Your task to perform on an android device: set default search engine in the chrome app Image 0: 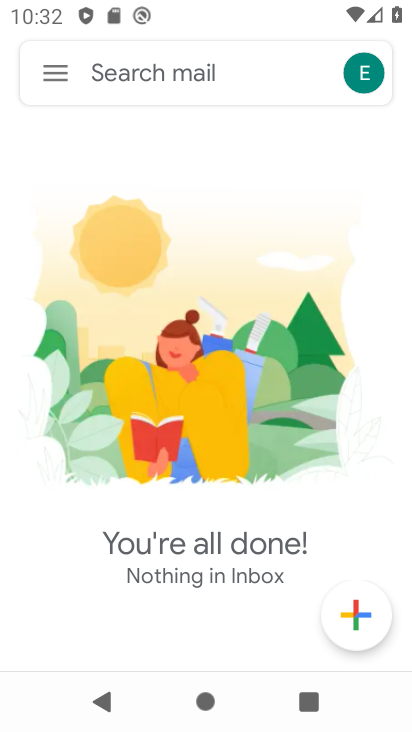
Step 0: press home button
Your task to perform on an android device: set default search engine in the chrome app Image 1: 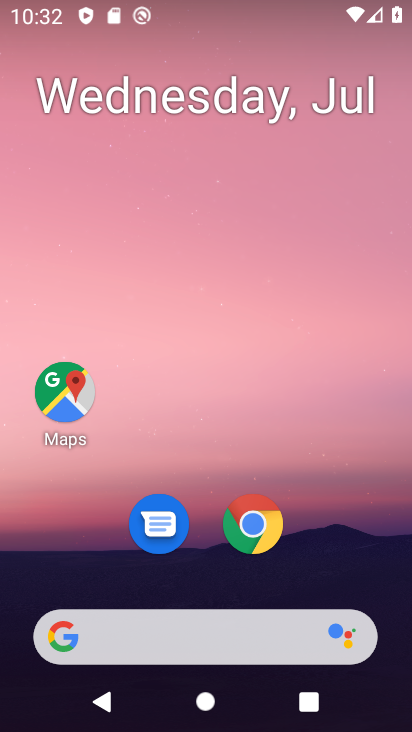
Step 1: click (255, 524)
Your task to perform on an android device: set default search engine in the chrome app Image 2: 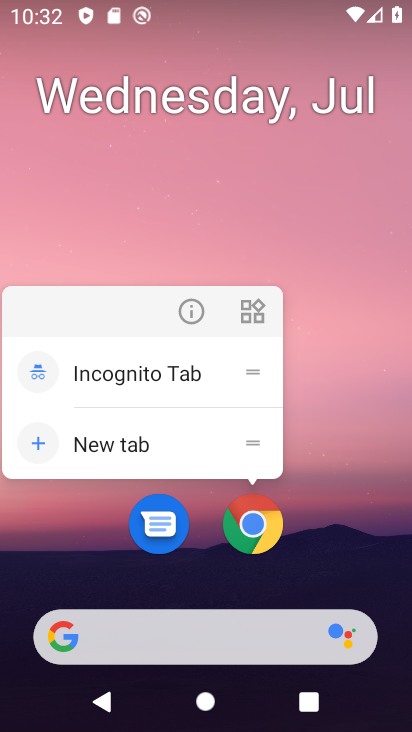
Step 2: click (255, 524)
Your task to perform on an android device: set default search engine in the chrome app Image 3: 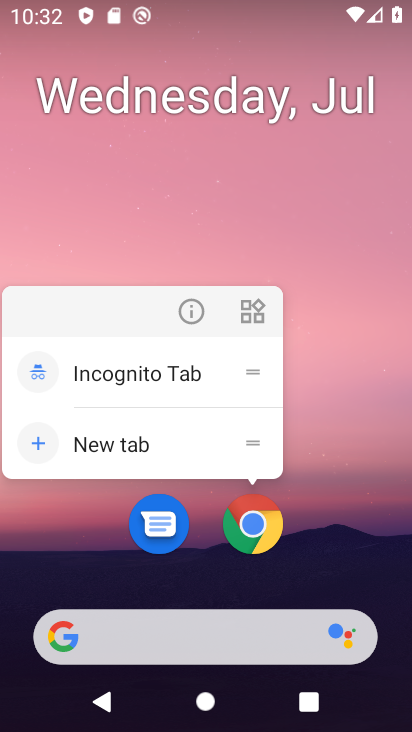
Step 3: click (259, 523)
Your task to perform on an android device: set default search engine in the chrome app Image 4: 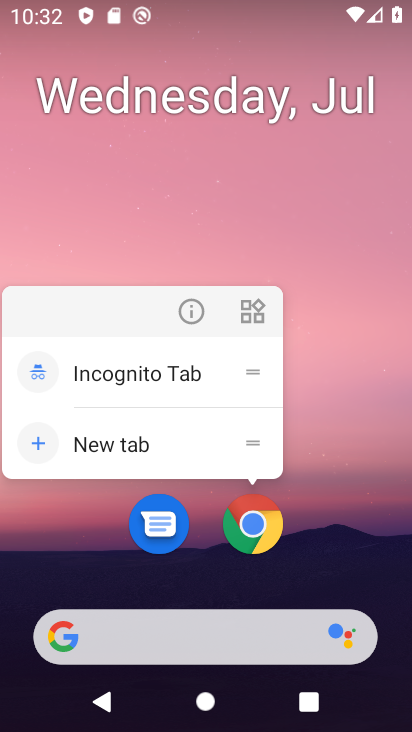
Step 4: click (259, 531)
Your task to perform on an android device: set default search engine in the chrome app Image 5: 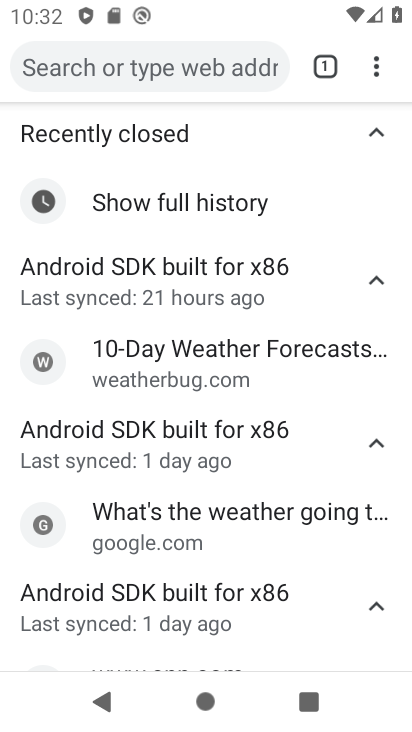
Step 5: drag from (378, 67) to (169, 568)
Your task to perform on an android device: set default search engine in the chrome app Image 6: 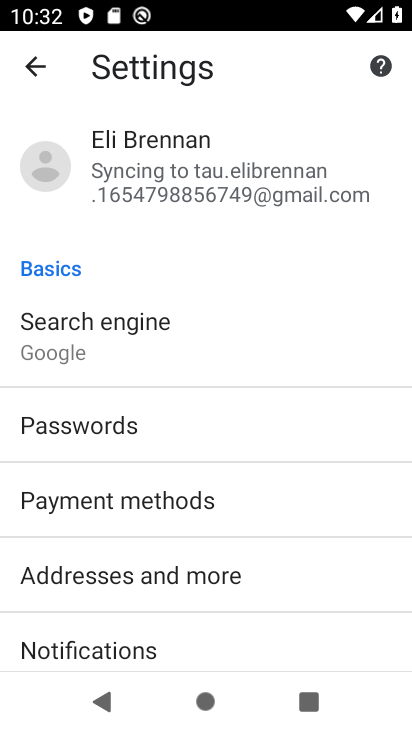
Step 6: click (114, 335)
Your task to perform on an android device: set default search engine in the chrome app Image 7: 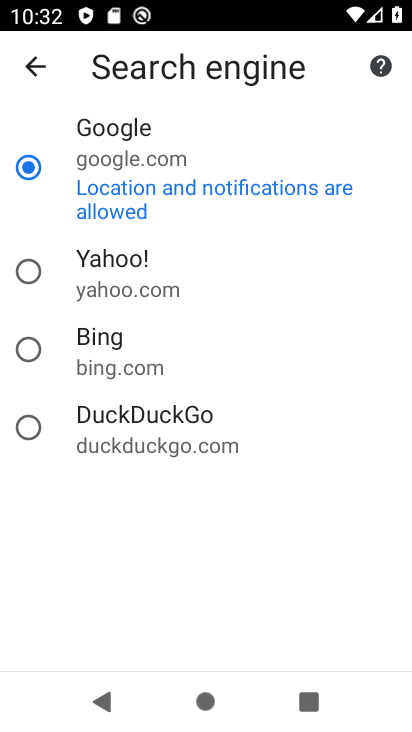
Step 7: click (32, 266)
Your task to perform on an android device: set default search engine in the chrome app Image 8: 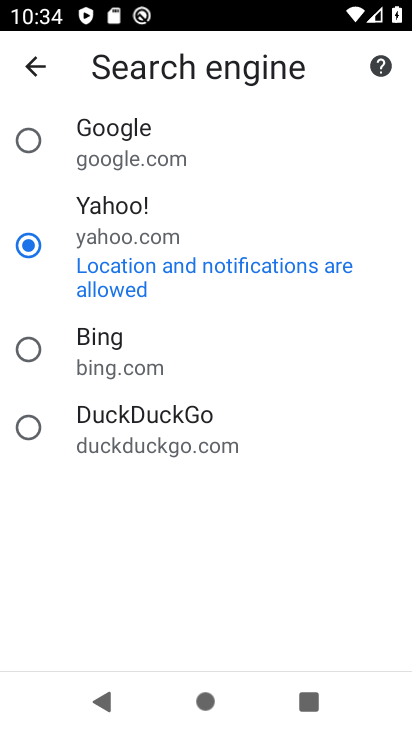
Step 8: task complete